Your task to perform on an android device: turn on wifi Image 0: 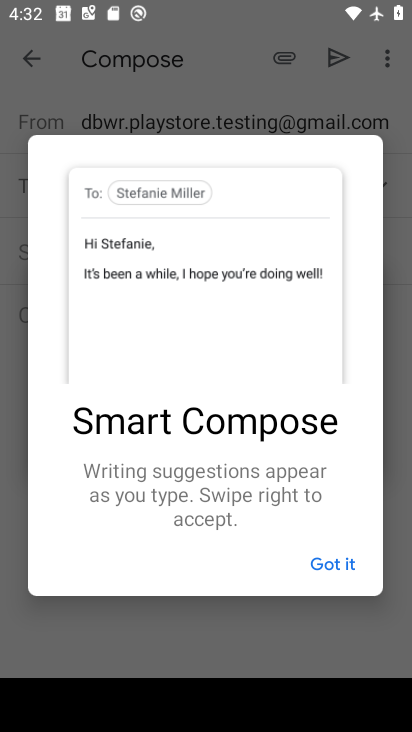
Step 0: press home button
Your task to perform on an android device: turn on wifi Image 1: 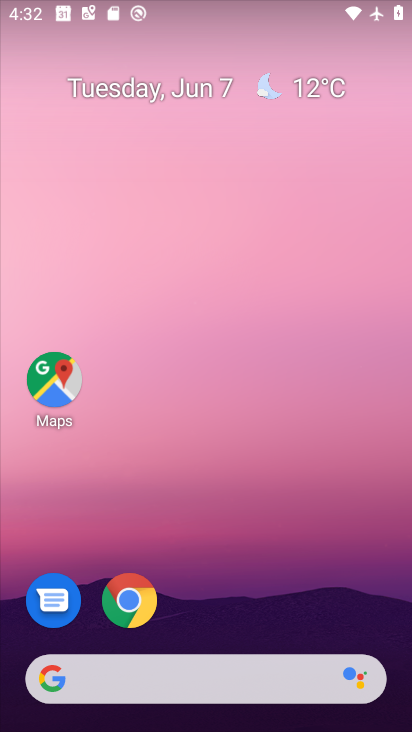
Step 1: drag from (276, 538) to (229, 183)
Your task to perform on an android device: turn on wifi Image 2: 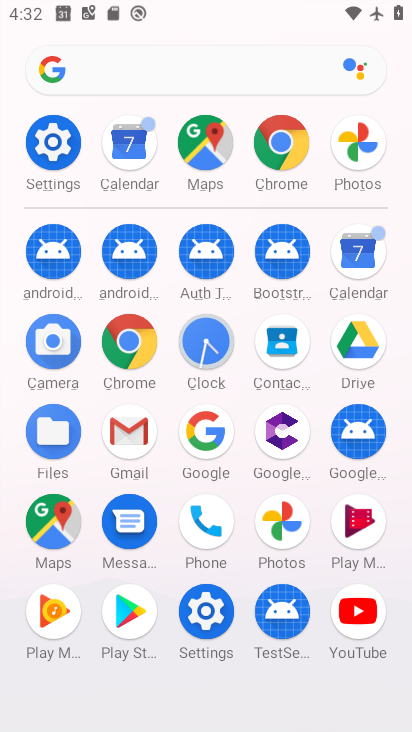
Step 2: click (40, 144)
Your task to perform on an android device: turn on wifi Image 3: 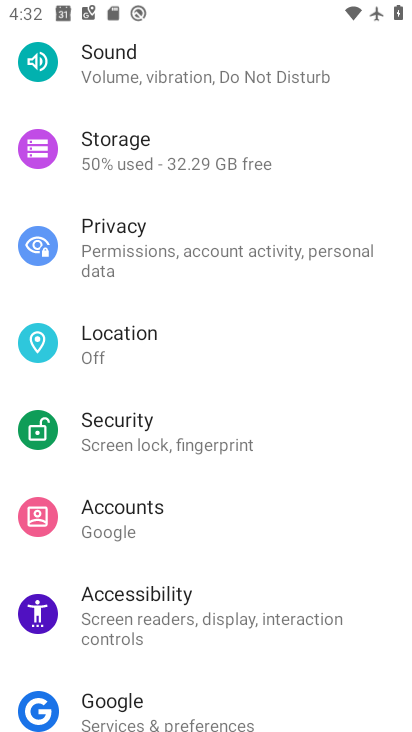
Step 3: drag from (218, 119) to (288, 609)
Your task to perform on an android device: turn on wifi Image 4: 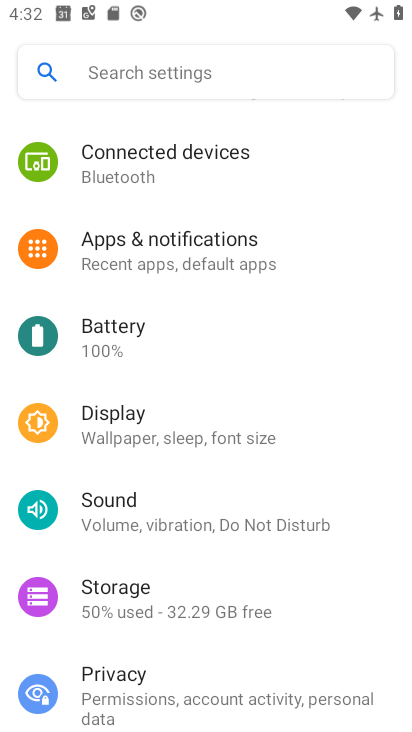
Step 4: drag from (213, 189) to (247, 523)
Your task to perform on an android device: turn on wifi Image 5: 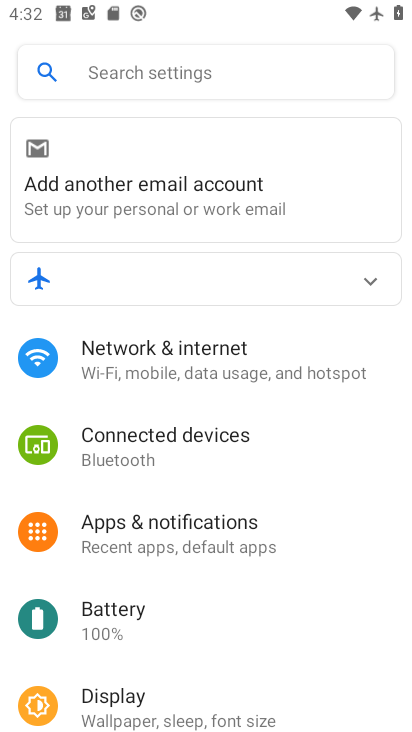
Step 5: click (298, 361)
Your task to perform on an android device: turn on wifi Image 6: 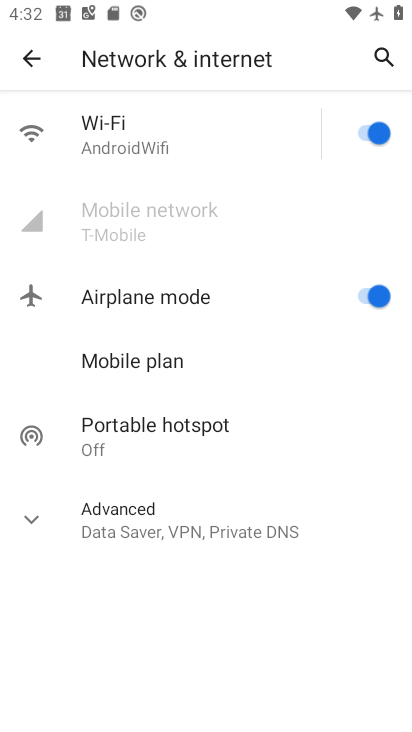
Step 6: click (98, 144)
Your task to perform on an android device: turn on wifi Image 7: 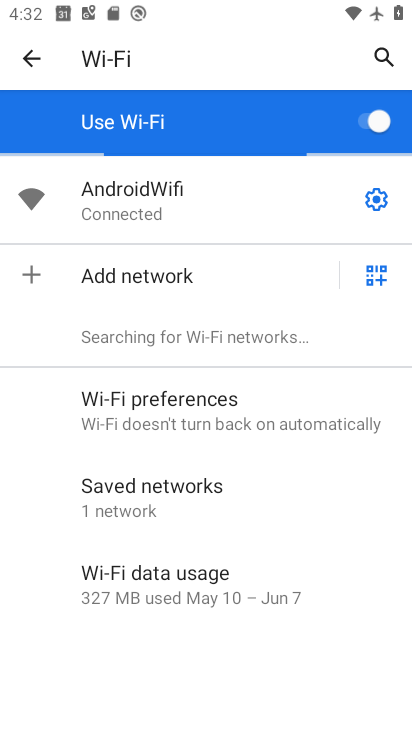
Step 7: task complete